Your task to perform on an android device: Open wifi settings Image 0: 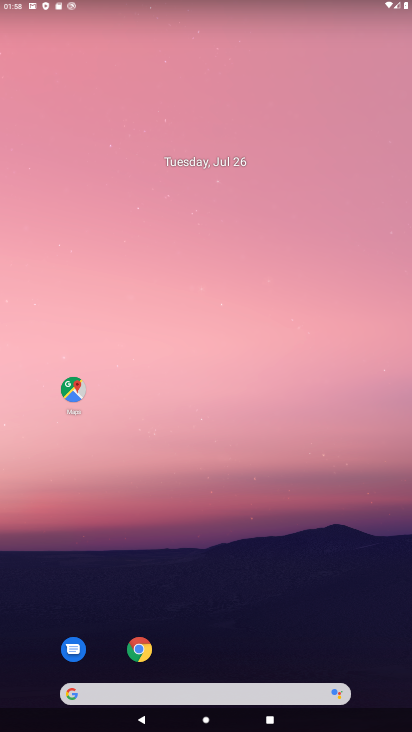
Step 0: drag from (182, 696) to (196, 46)
Your task to perform on an android device: Open wifi settings Image 1: 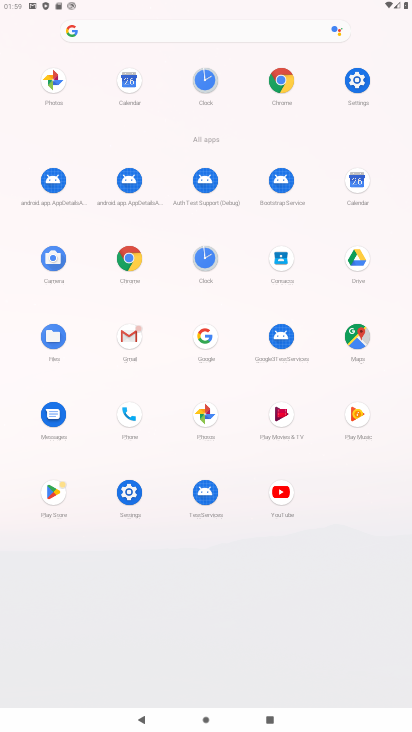
Step 1: click (355, 77)
Your task to perform on an android device: Open wifi settings Image 2: 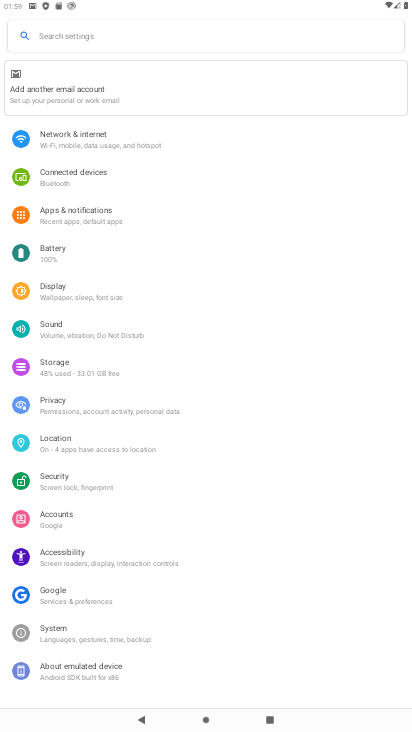
Step 2: click (100, 138)
Your task to perform on an android device: Open wifi settings Image 3: 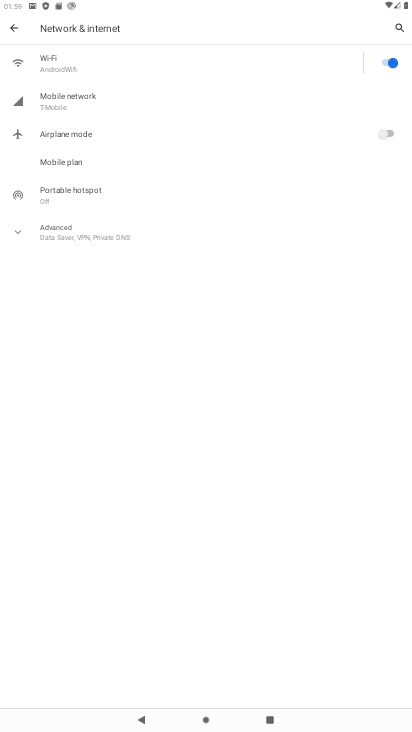
Step 3: click (58, 69)
Your task to perform on an android device: Open wifi settings Image 4: 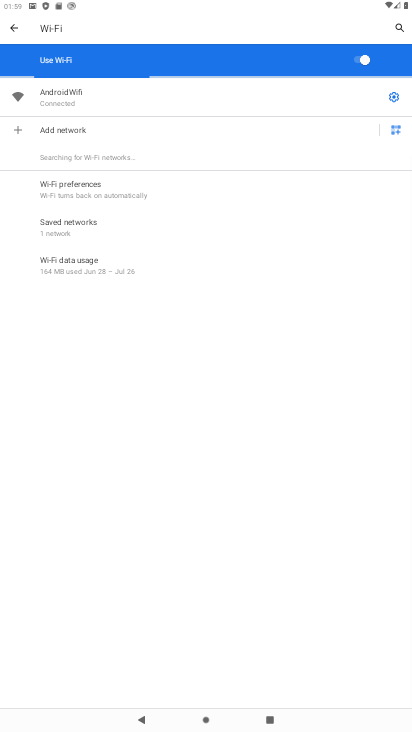
Step 4: click (392, 95)
Your task to perform on an android device: Open wifi settings Image 5: 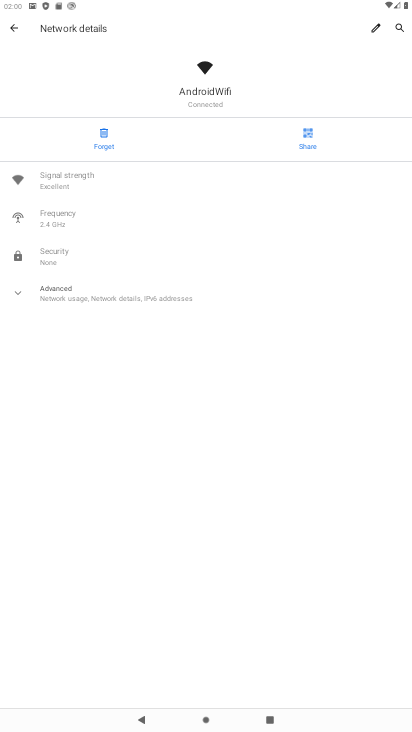
Step 5: task complete